Your task to perform on an android device: Go to Wikipedia Image 0: 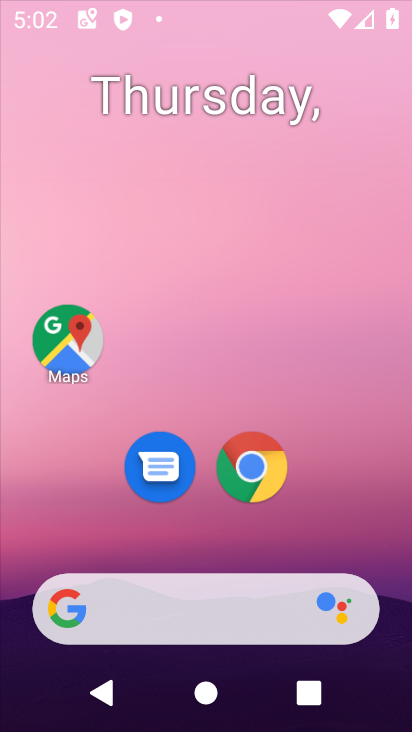
Step 0: click (320, 196)
Your task to perform on an android device: Go to Wikipedia Image 1: 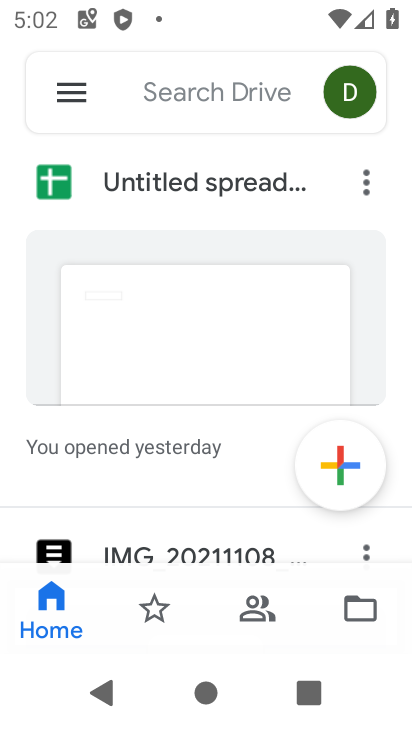
Step 1: press home button
Your task to perform on an android device: Go to Wikipedia Image 2: 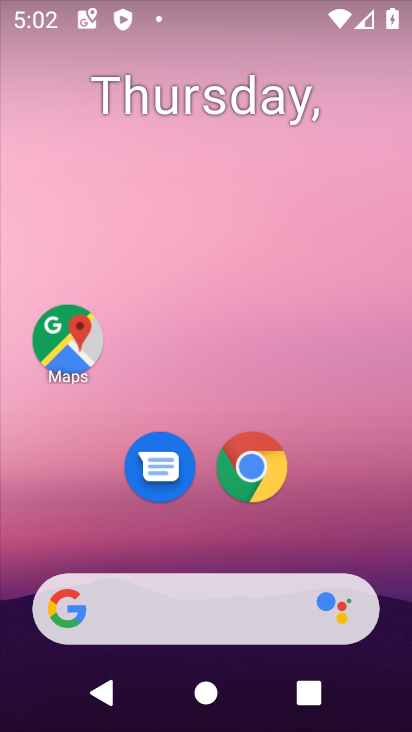
Step 2: click (261, 478)
Your task to perform on an android device: Go to Wikipedia Image 3: 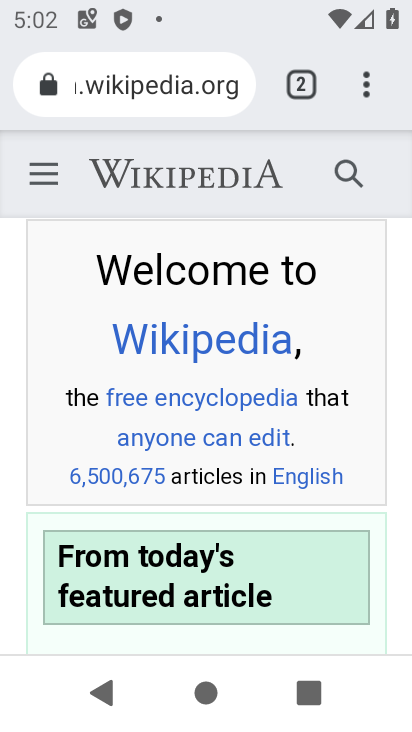
Step 3: task complete